Your task to perform on an android device: turn off airplane mode Image 0: 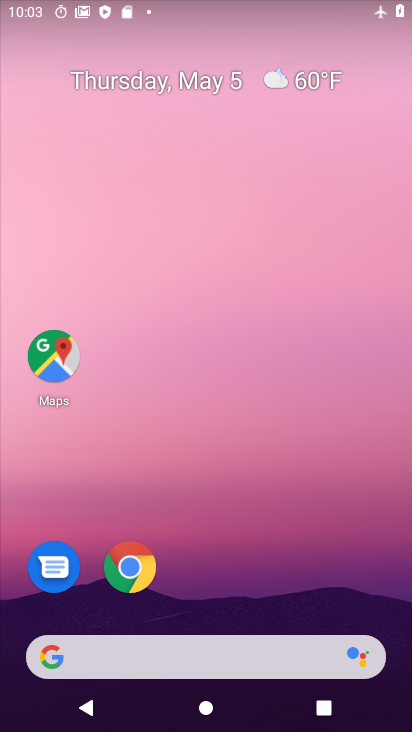
Step 0: drag from (353, 539) to (334, 117)
Your task to perform on an android device: turn off airplane mode Image 1: 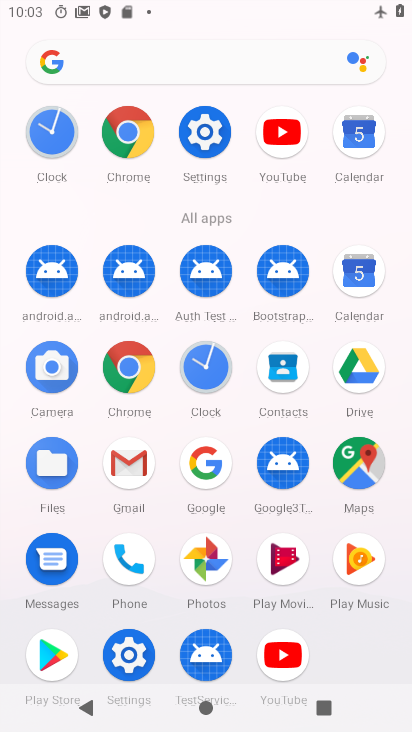
Step 1: click (180, 136)
Your task to perform on an android device: turn off airplane mode Image 2: 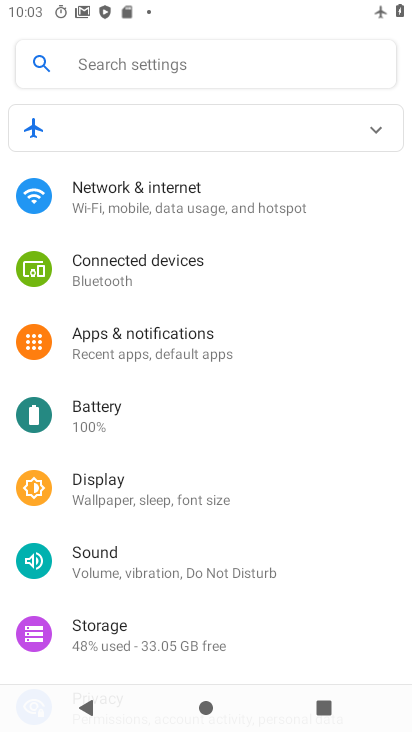
Step 2: click (147, 209)
Your task to perform on an android device: turn off airplane mode Image 3: 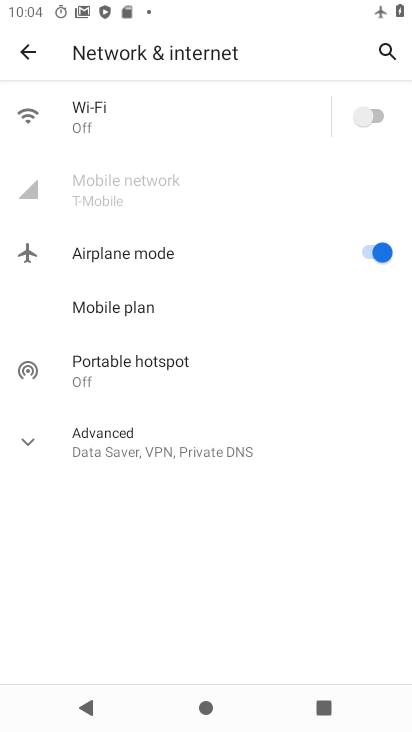
Step 3: click (361, 255)
Your task to perform on an android device: turn off airplane mode Image 4: 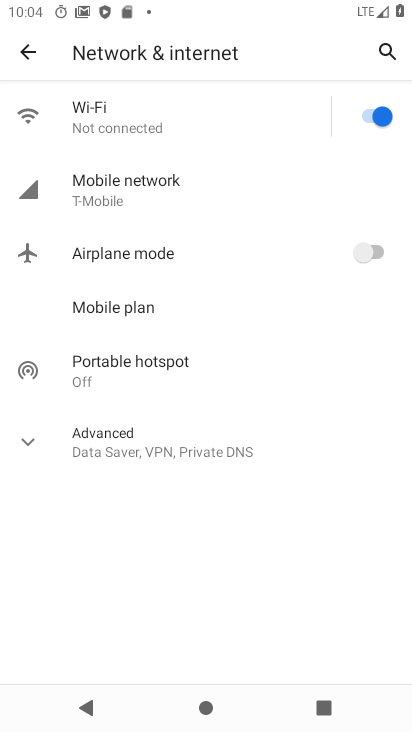
Step 4: task complete